Your task to perform on an android device: add a contact Image 0: 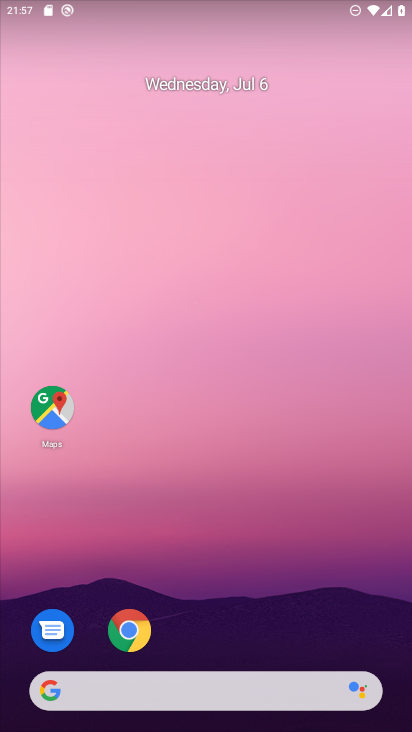
Step 0: drag from (208, 616) to (202, 6)
Your task to perform on an android device: add a contact Image 1: 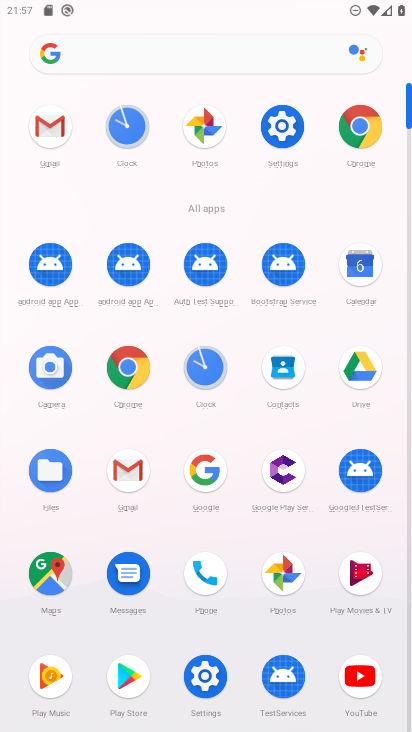
Step 1: drag from (211, 636) to (171, 260)
Your task to perform on an android device: add a contact Image 2: 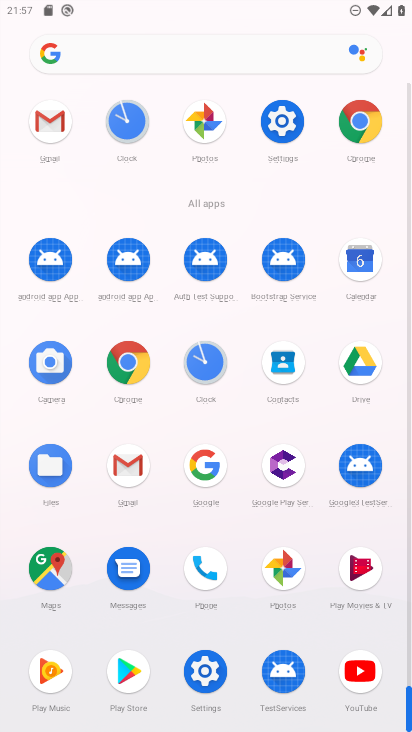
Step 2: drag from (169, 250) to (209, 368)
Your task to perform on an android device: add a contact Image 3: 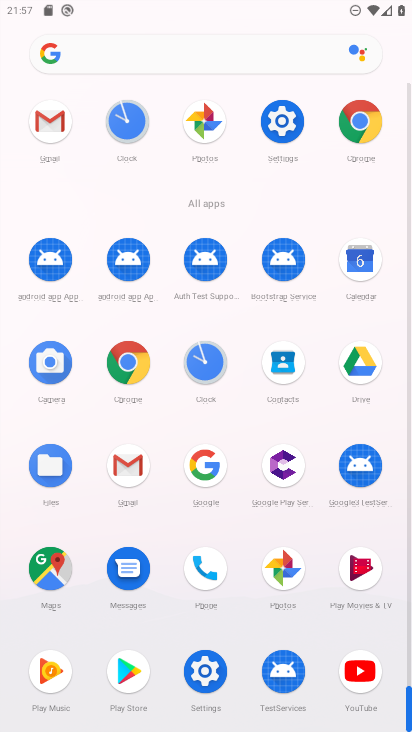
Step 3: click (297, 378)
Your task to perform on an android device: add a contact Image 4: 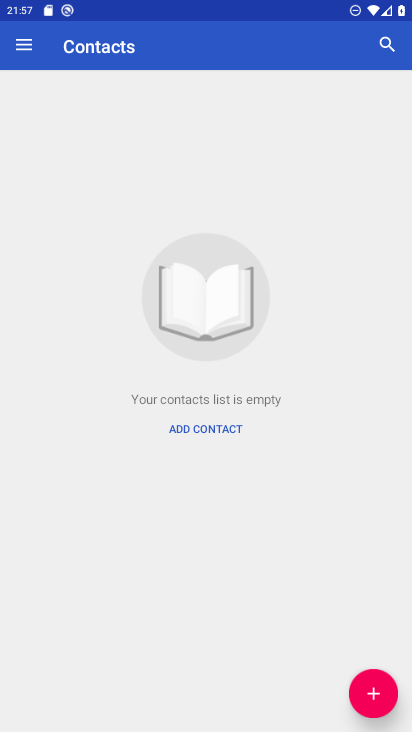
Step 4: click (382, 710)
Your task to perform on an android device: add a contact Image 5: 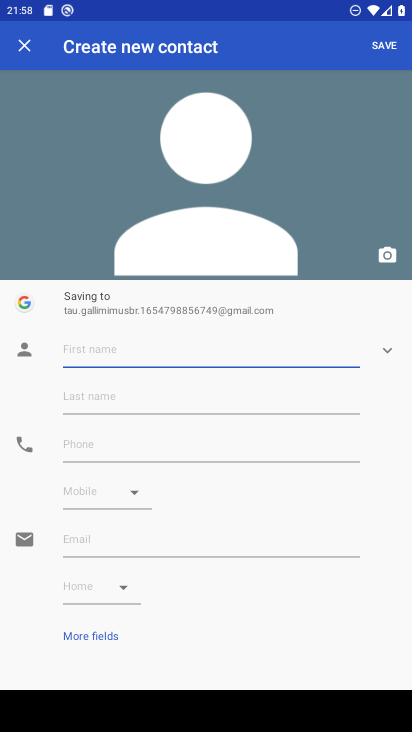
Step 5: type "shuruti"
Your task to perform on an android device: add a contact Image 6: 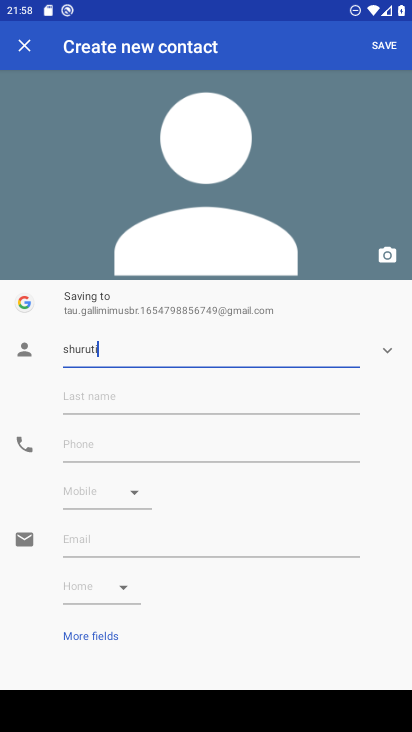
Step 6: click (144, 435)
Your task to perform on an android device: add a contact Image 7: 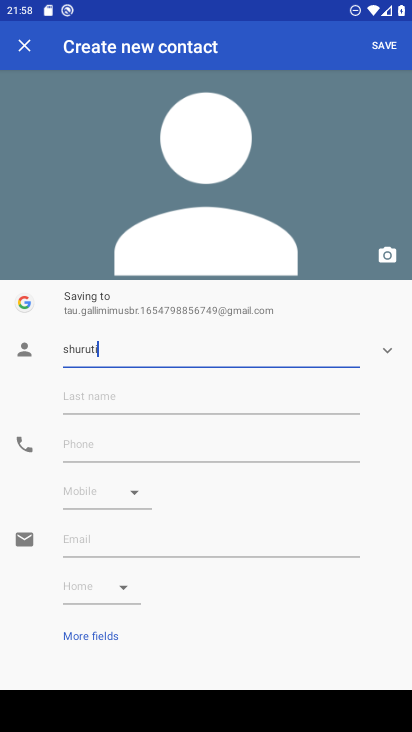
Step 7: click (144, 435)
Your task to perform on an android device: add a contact Image 8: 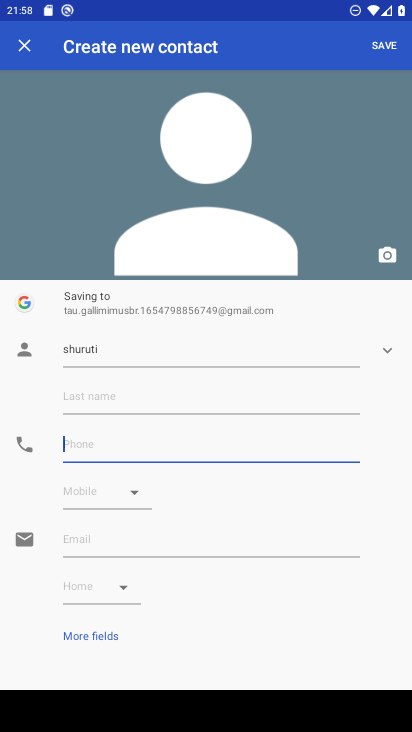
Step 8: click (144, 435)
Your task to perform on an android device: add a contact Image 9: 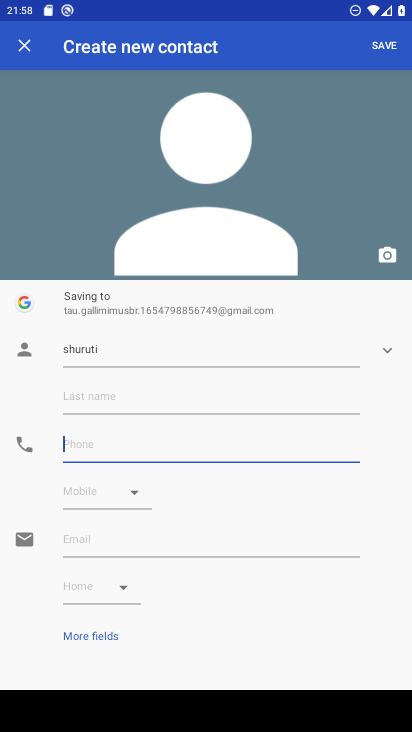
Step 9: click (144, 435)
Your task to perform on an android device: add a contact Image 10: 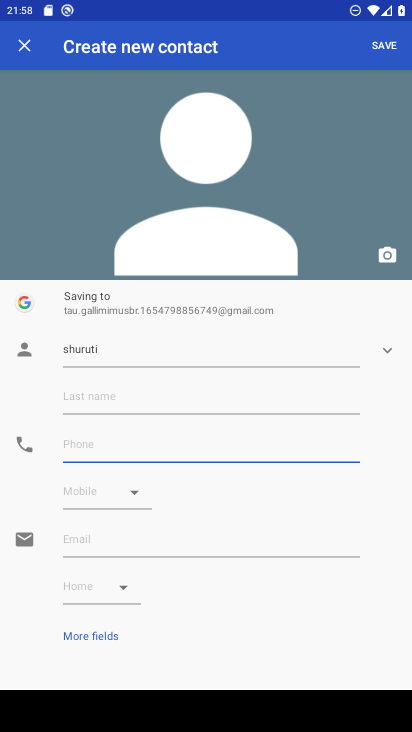
Step 10: type "987687978789782u21--"
Your task to perform on an android device: add a contact Image 11: 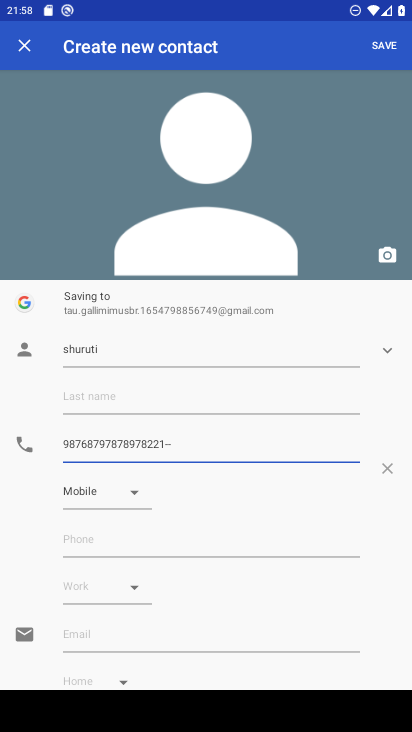
Step 11: click (379, 36)
Your task to perform on an android device: add a contact Image 12: 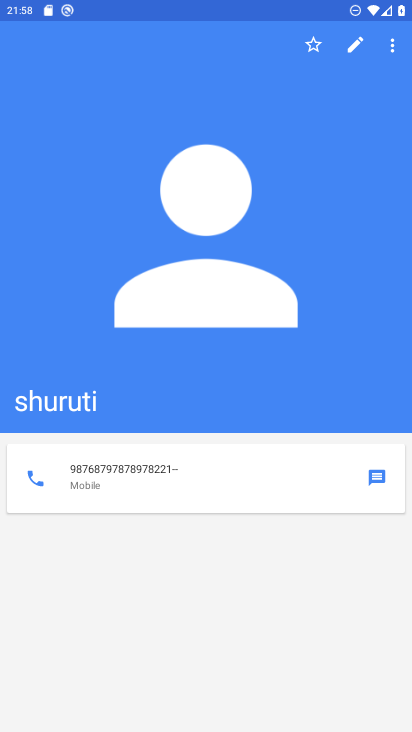
Step 12: task complete